Your task to perform on an android device: Open calendar and show me the third week of next month Image 0: 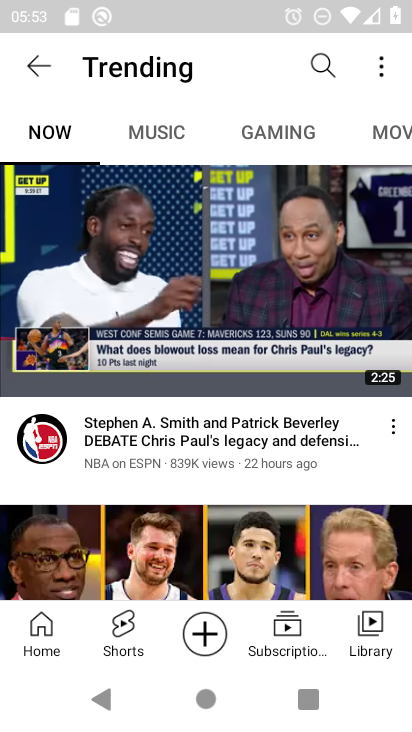
Step 0: press home button
Your task to perform on an android device: Open calendar and show me the third week of next month Image 1: 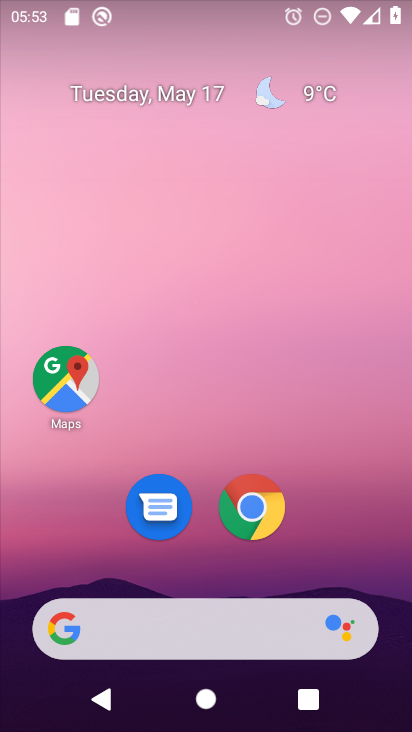
Step 1: click (184, 88)
Your task to perform on an android device: Open calendar and show me the third week of next month Image 2: 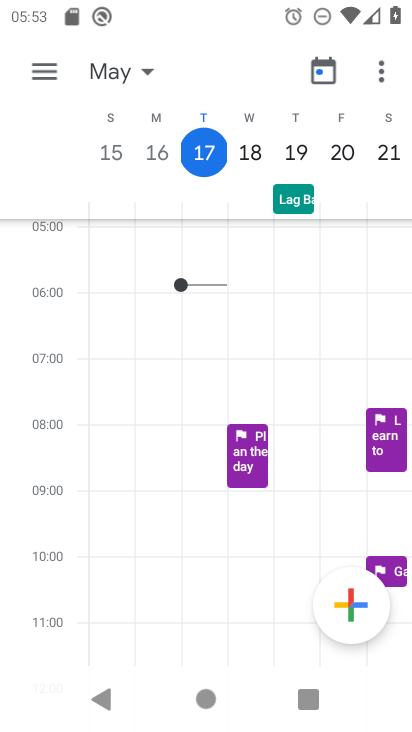
Step 2: click (133, 67)
Your task to perform on an android device: Open calendar and show me the third week of next month Image 3: 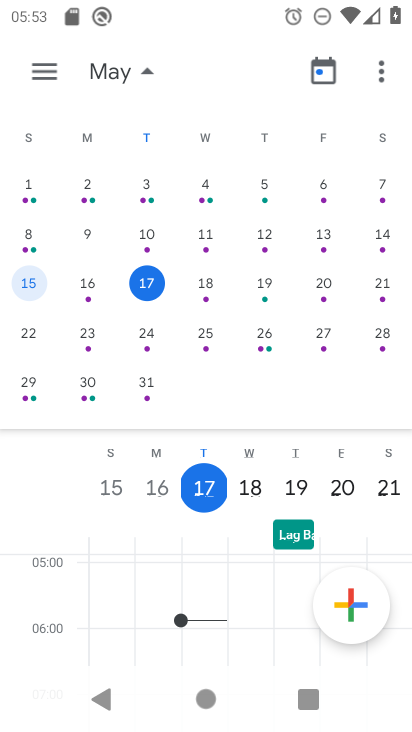
Step 3: drag from (302, 302) to (9, 368)
Your task to perform on an android device: Open calendar and show me the third week of next month Image 4: 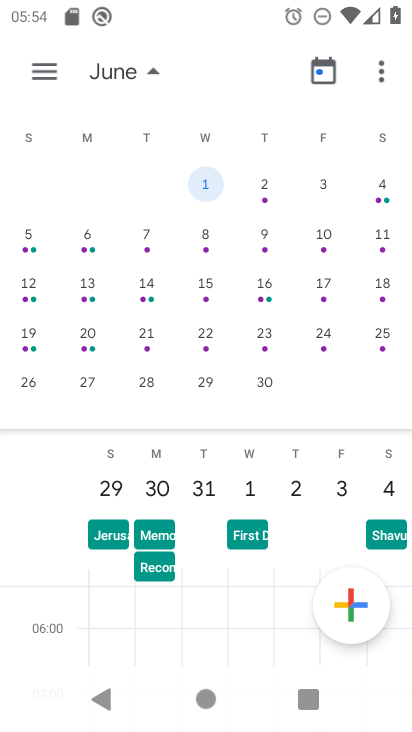
Step 4: click (32, 292)
Your task to perform on an android device: Open calendar and show me the third week of next month Image 5: 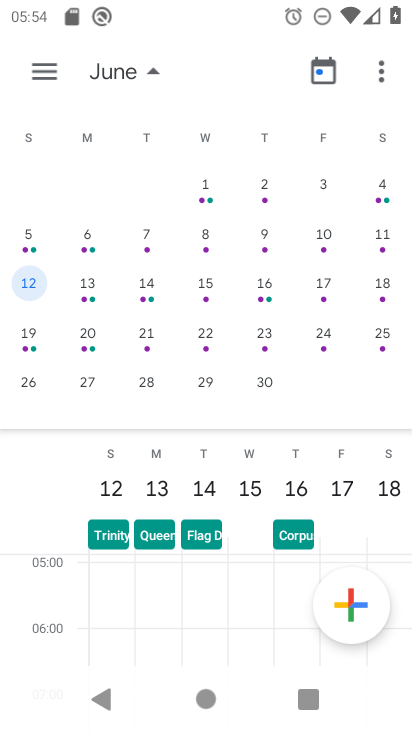
Step 5: task complete